Your task to perform on an android device: Open my contact list Image 0: 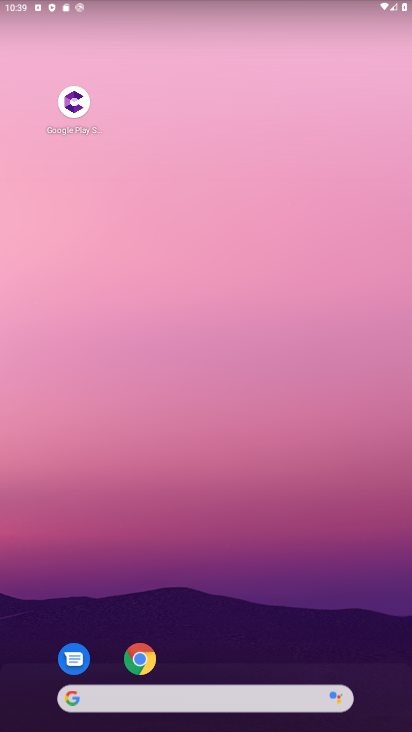
Step 0: drag from (187, 637) to (239, 226)
Your task to perform on an android device: Open my contact list Image 1: 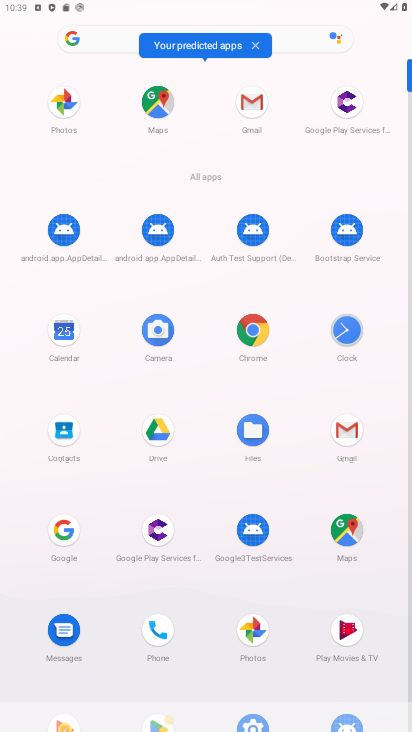
Step 1: click (71, 435)
Your task to perform on an android device: Open my contact list Image 2: 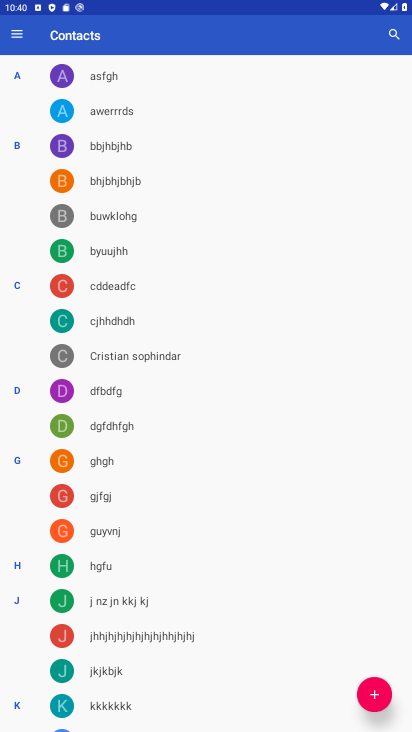
Step 2: task complete